Your task to perform on an android device: Is it going to rain today? Image 0: 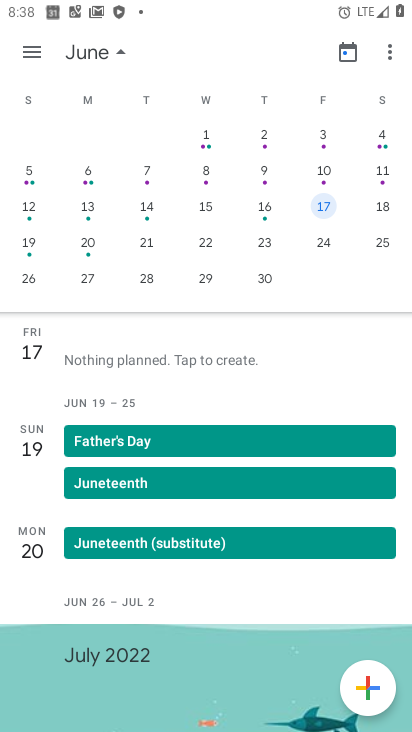
Step 0: press home button
Your task to perform on an android device: Is it going to rain today? Image 1: 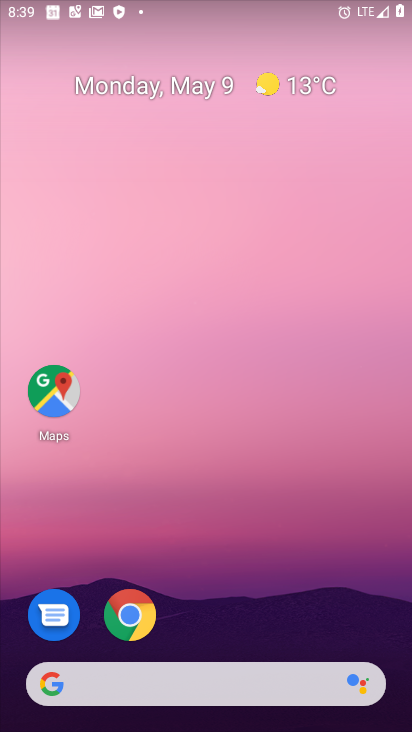
Step 1: click (321, 91)
Your task to perform on an android device: Is it going to rain today? Image 2: 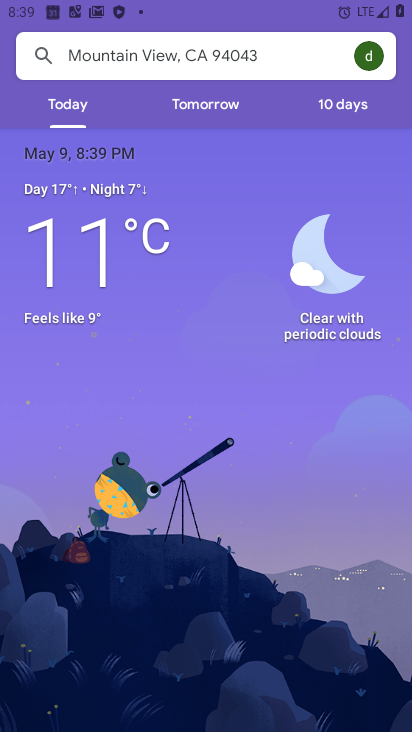
Step 2: task complete